Your task to perform on an android device: Open ESPN.com Image 0: 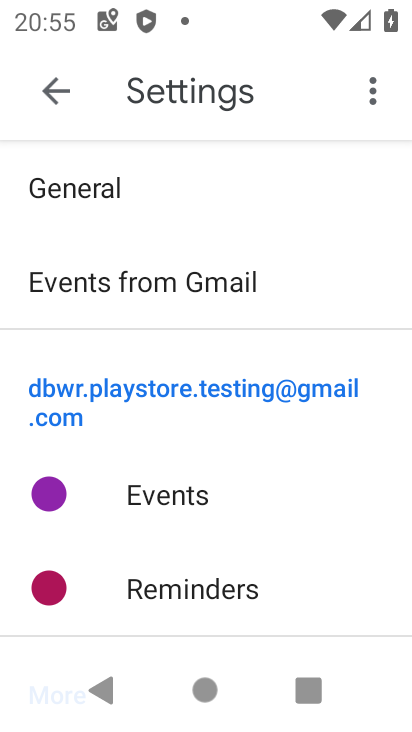
Step 0: press home button
Your task to perform on an android device: Open ESPN.com Image 1: 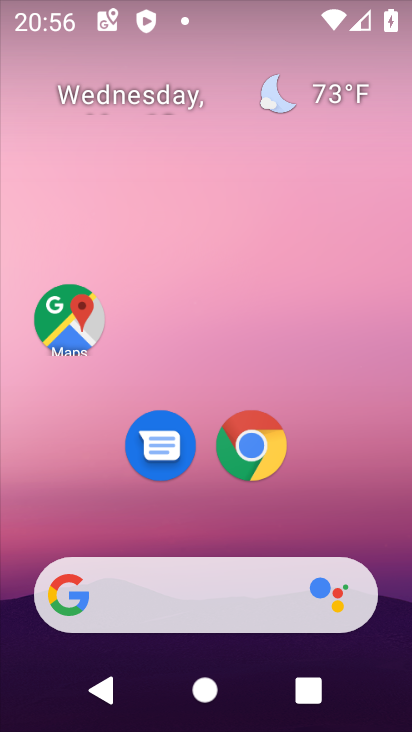
Step 1: drag from (327, 499) to (331, 238)
Your task to perform on an android device: Open ESPN.com Image 2: 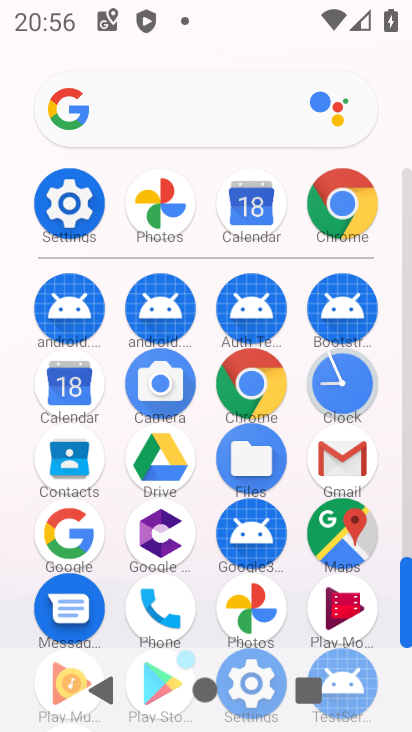
Step 2: click (243, 371)
Your task to perform on an android device: Open ESPN.com Image 3: 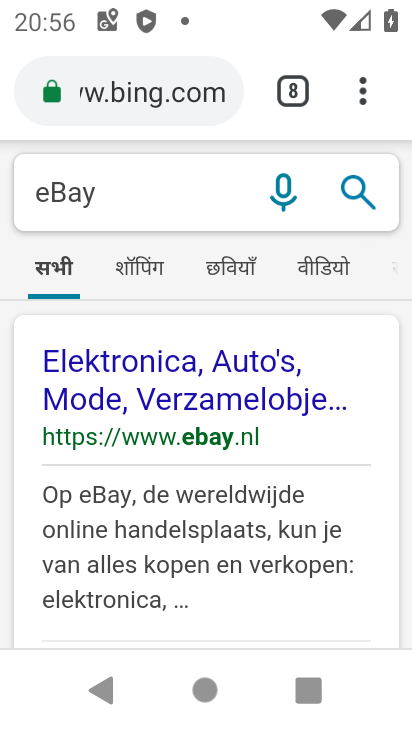
Step 3: click (354, 97)
Your task to perform on an android device: Open ESPN.com Image 4: 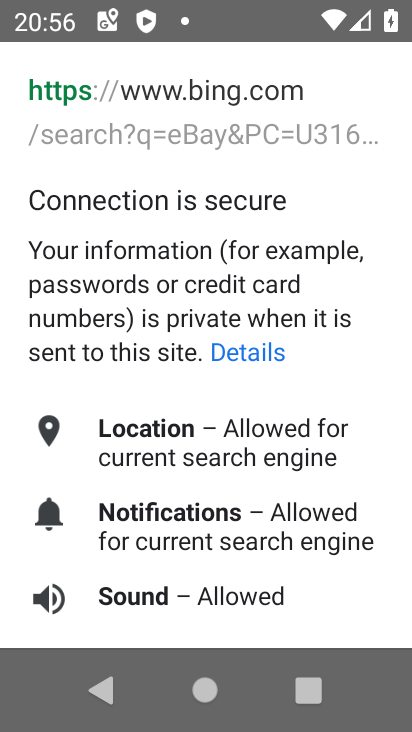
Step 4: press back button
Your task to perform on an android device: Open ESPN.com Image 5: 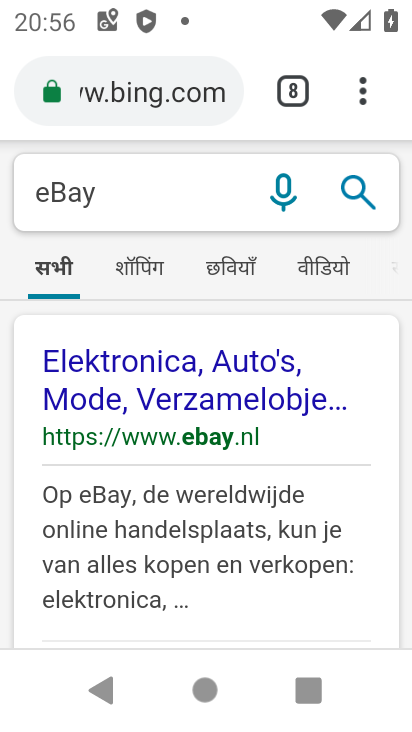
Step 5: click (375, 102)
Your task to perform on an android device: Open ESPN.com Image 6: 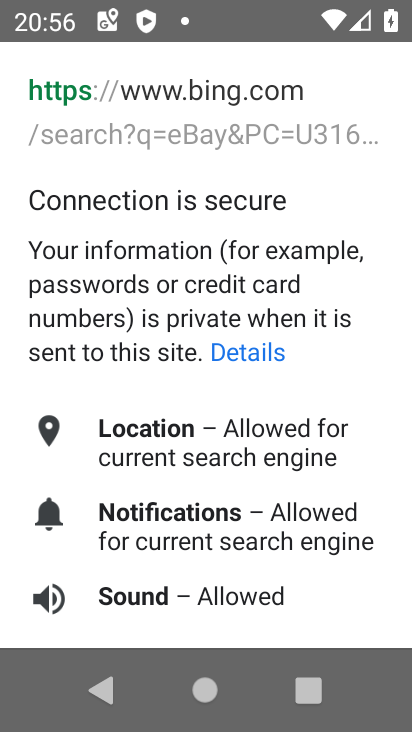
Step 6: press back button
Your task to perform on an android device: Open ESPN.com Image 7: 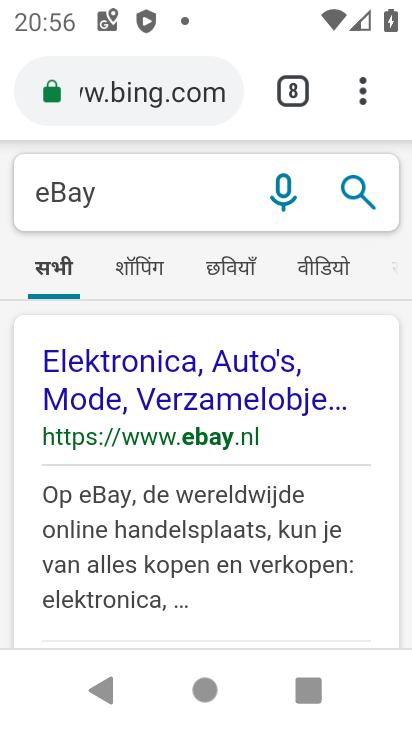
Step 7: click (373, 103)
Your task to perform on an android device: Open ESPN.com Image 8: 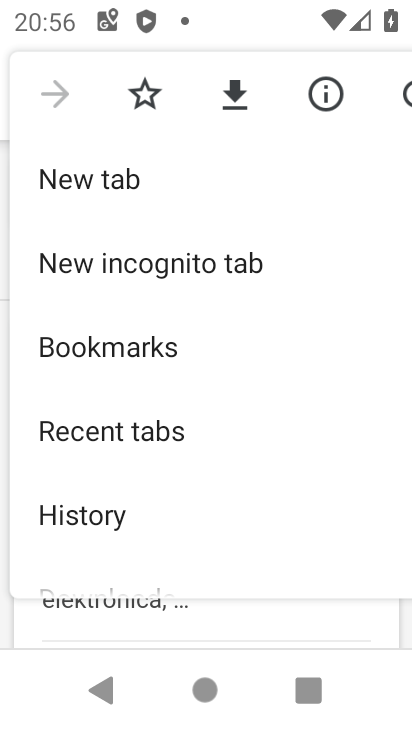
Step 8: click (157, 182)
Your task to perform on an android device: Open ESPN.com Image 9: 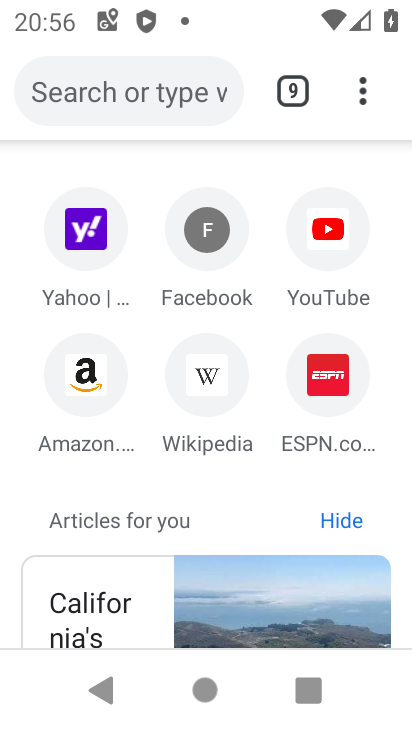
Step 9: click (331, 382)
Your task to perform on an android device: Open ESPN.com Image 10: 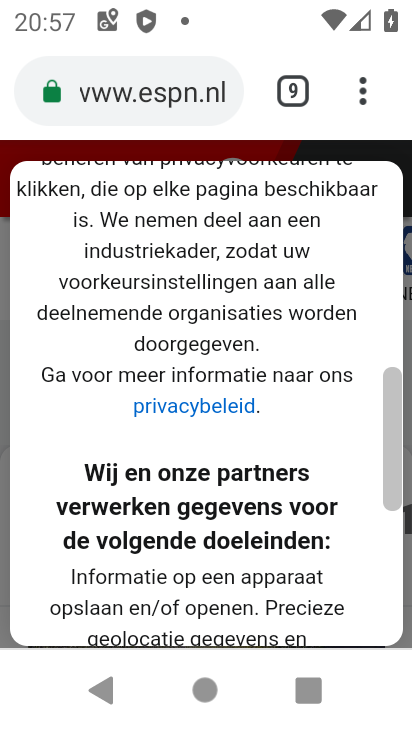
Step 10: task complete